Your task to perform on an android device: Open the phone app and click the voicemail tab. Image 0: 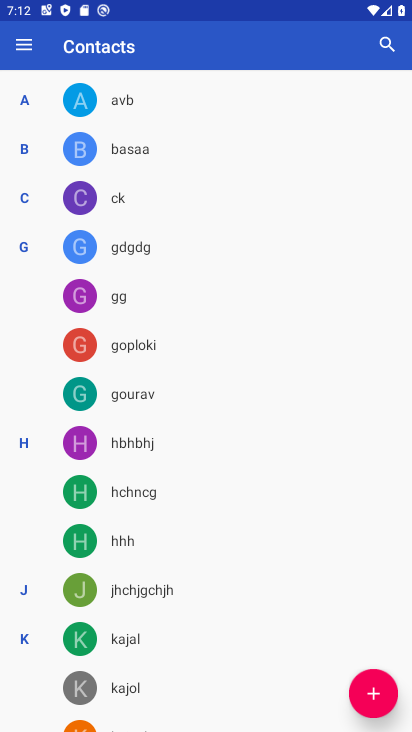
Step 0: press home button
Your task to perform on an android device: Open the phone app and click the voicemail tab. Image 1: 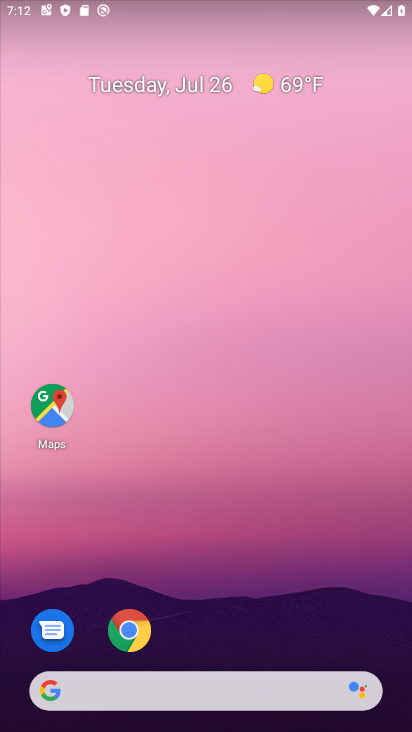
Step 1: drag from (197, 597) to (210, 52)
Your task to perform on an android device: Open the phone app and click the voicemail tab. Image 2: 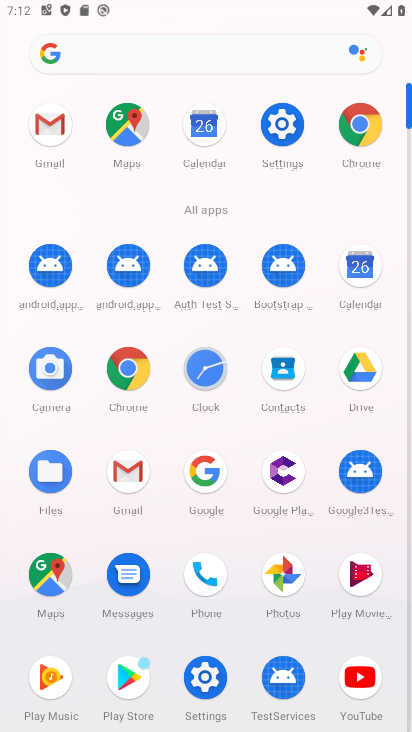
Step 2: click (201, 584)
Your task to perform on an android device: Open the phone app and click the voicemail tab. Image 3: 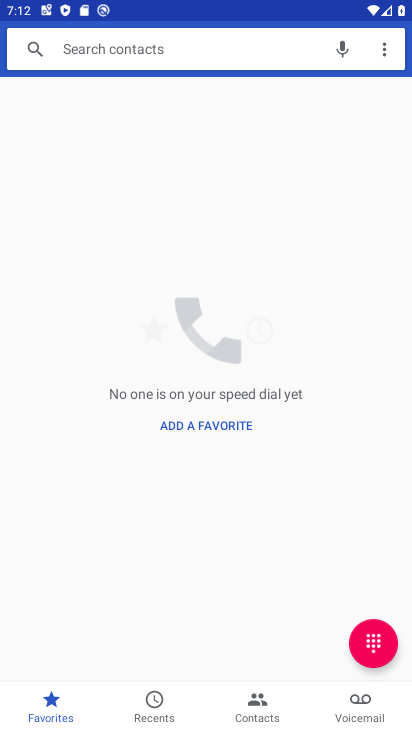
Step 3: click (368, 712)
Your task to perform on an android device: Open the phone app and click the voicemail tab. Image 4: 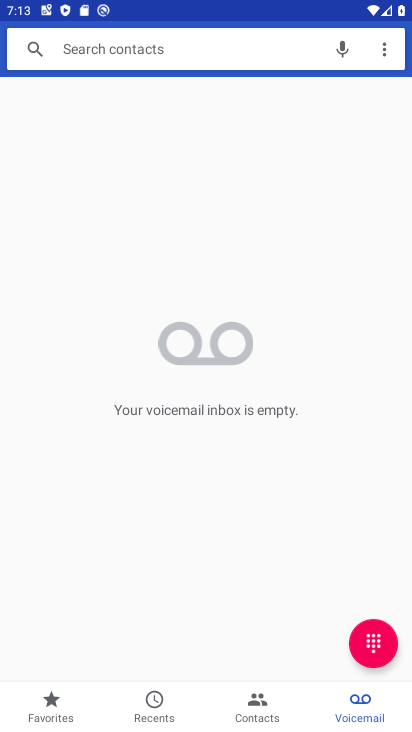
Step 4: task complete